Your task to perform on an android device: Go to Amazon Image 0: 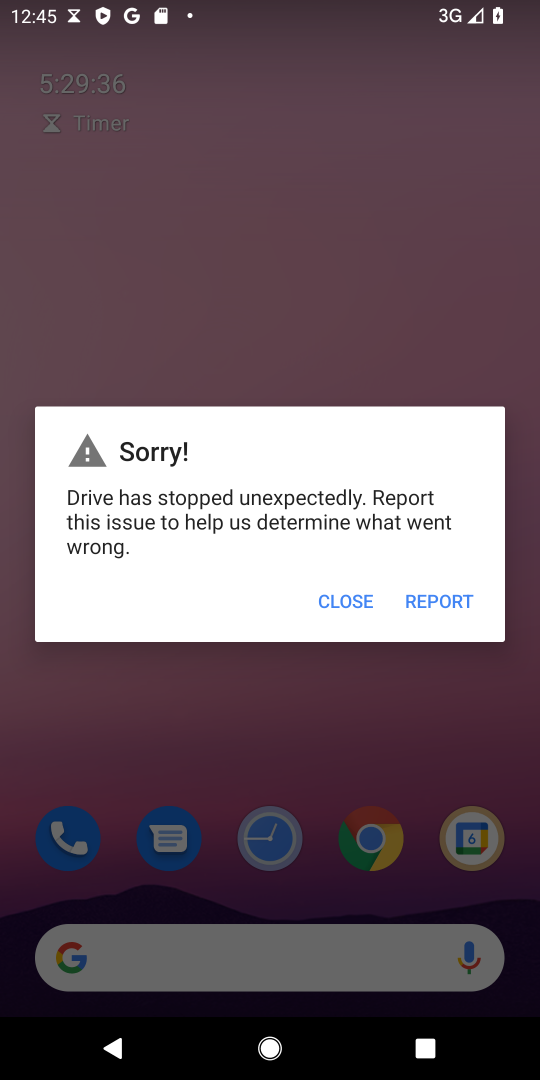
Step 0: click (435, 708)
Your task to perform on an android device: Go to Amazon Image 1: 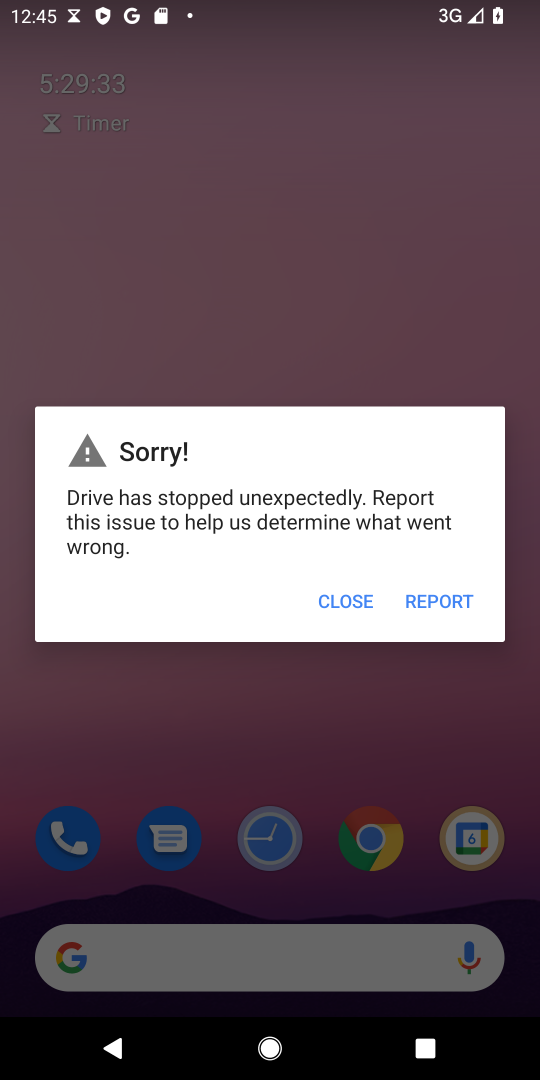
Step 1: click (352, 593)
Your task to perform on an android device: Go to Amazon Image 2: 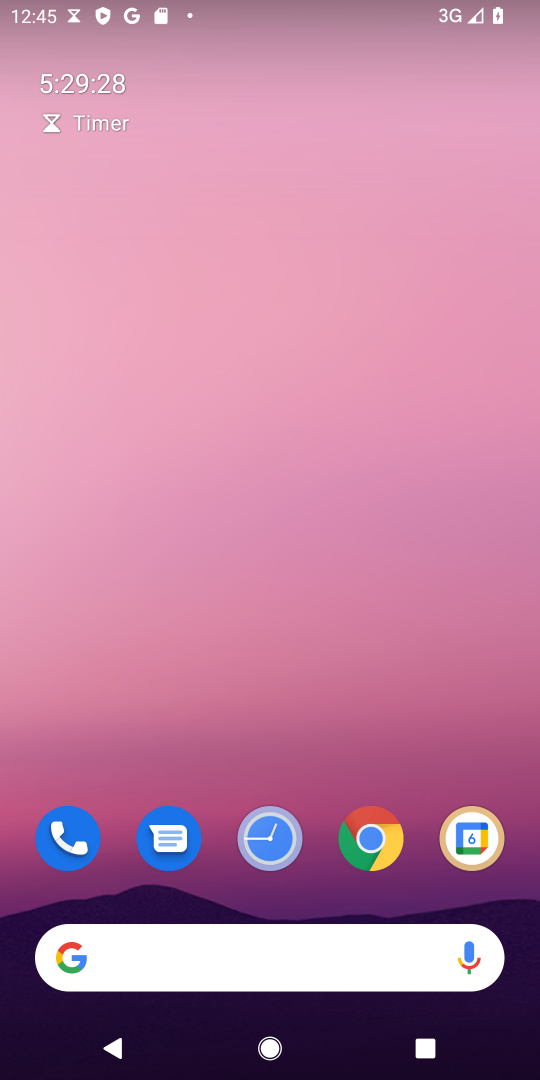
Step 2: click (375, 854)
Your task to perform on an android device: Go to Amazon Image 3: 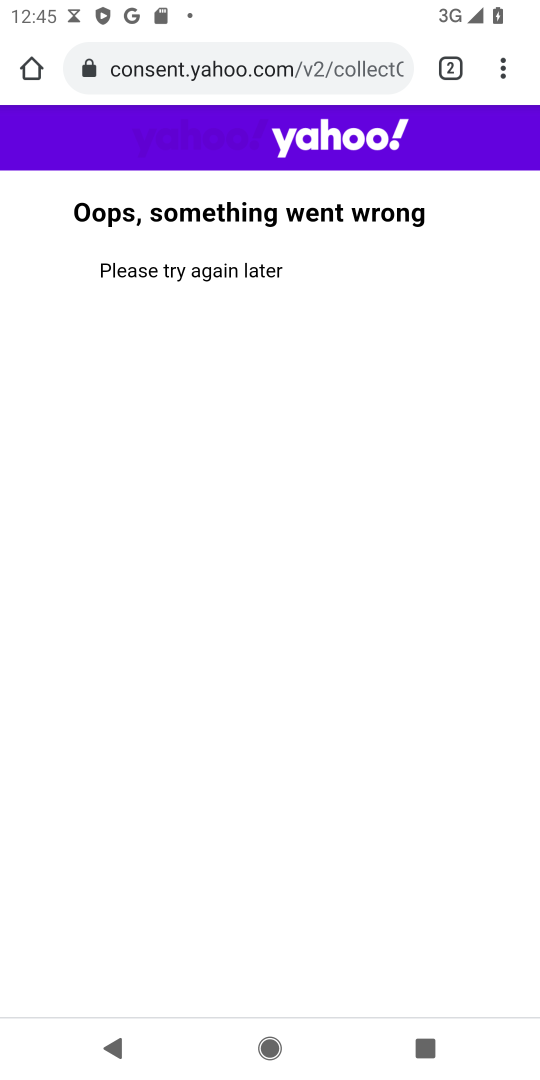
Step 3: click (273, 73)
Your task to perform on an android device: Go to Amazon Image 4: 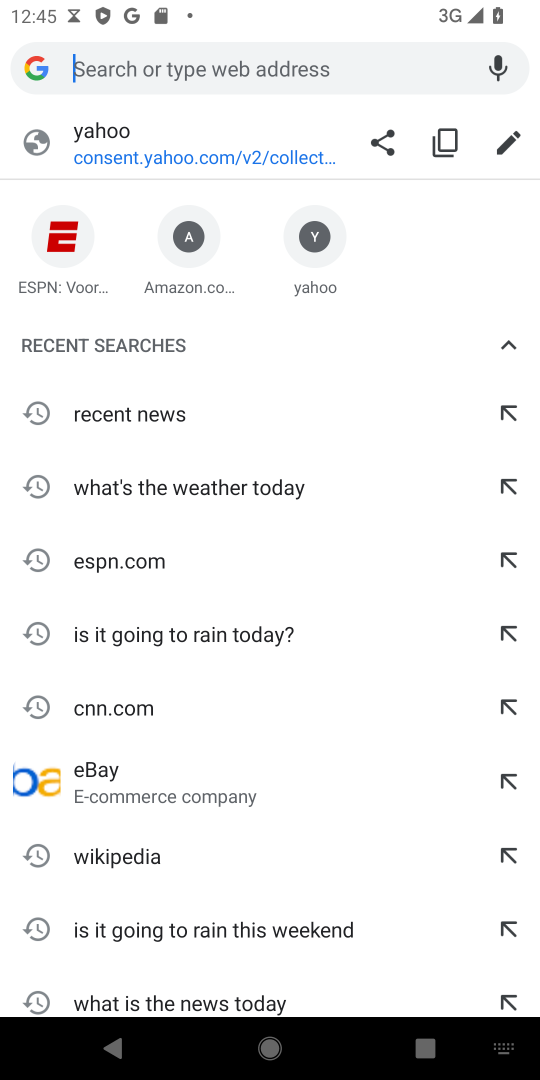
Step 4: type "amazon"
Your task to perform on an android device: Go to Amazon Image 5: 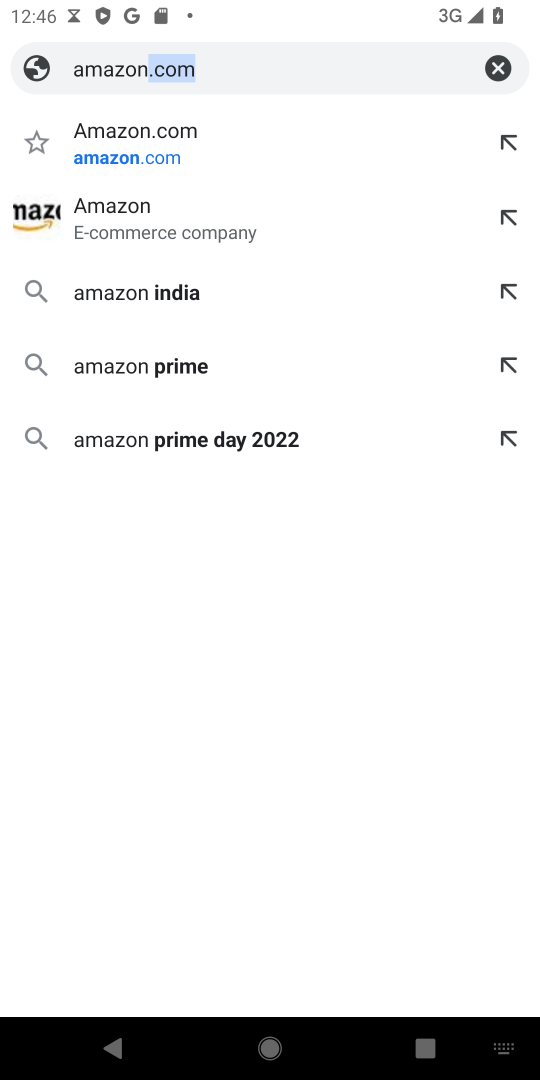
Step 5: click (300, 129)
Your task to perform on an android device: Go to Amazon Image 6: 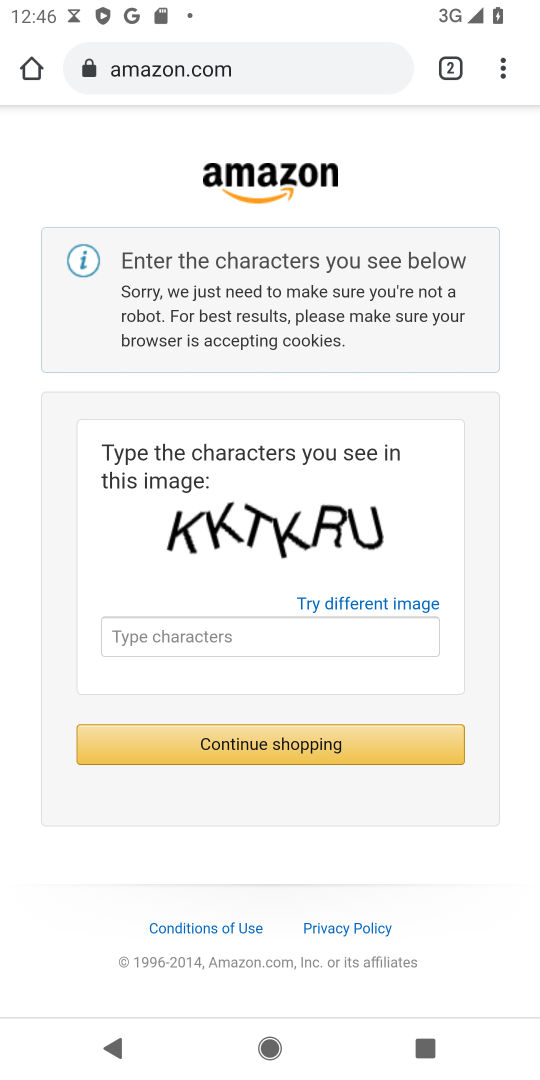
Step 6: task complete